Your task to perform on an android device: change your default location settings in chrome Image 0: 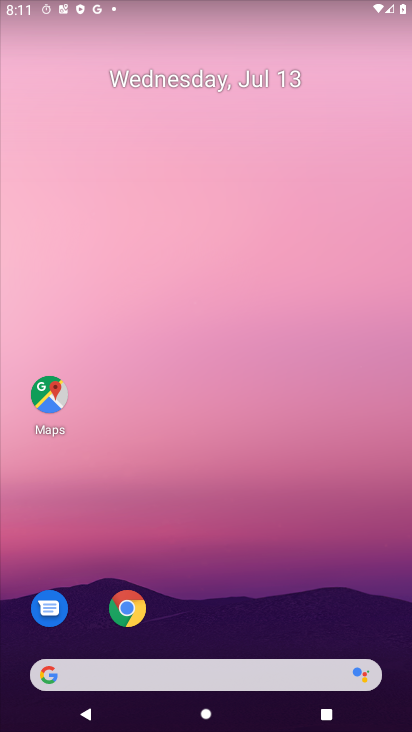
Step 0: drag from (190, 644) to (71, 225)
Your task to perform on an android device: change your default location settings in chrome Image 1: 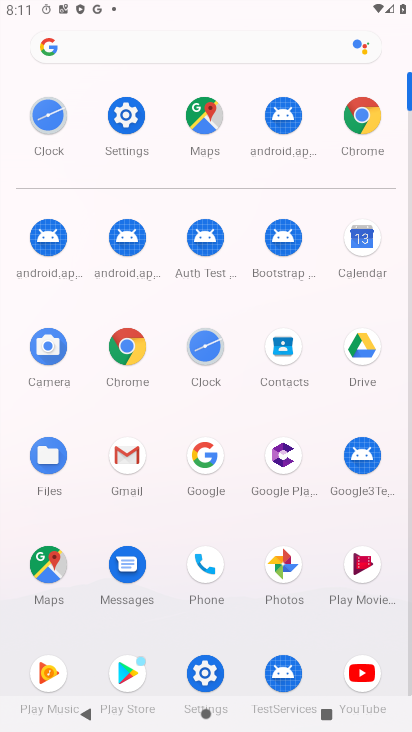
Step 1: click (143, 355)
Your task to perform on an android device: change your default location settings in chrome Image 2: 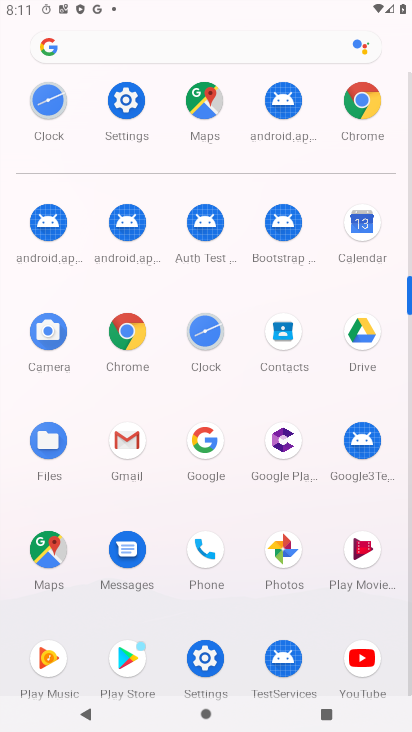
Step 2: click (121, 324)
Your task to perform on an android device: change your default location settings in chrome Image 3: 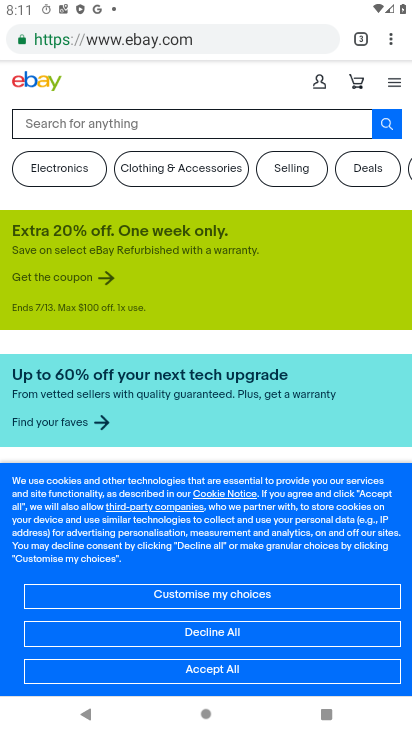
Step 3: drag from (390, 37) to (246, 468)
Your task to perform on an android device: change your default location settings in chrome Image 4: 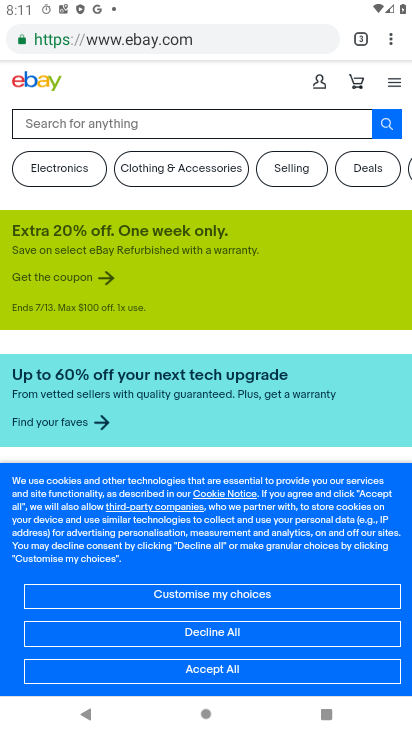
Step 4: click (246, 468)
Your task to perform on an android device: change your default location settings in chrome Image 5: 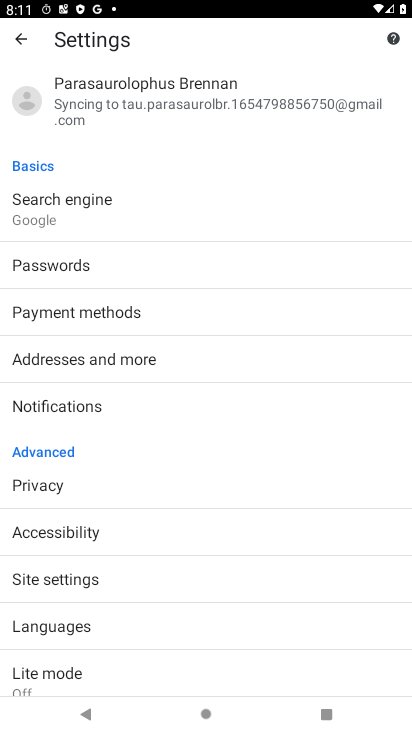
Step 5: drag from (149, 557) to (219, 114)
Your task to perform on an android device: change your default location settings in chrome Image 6: 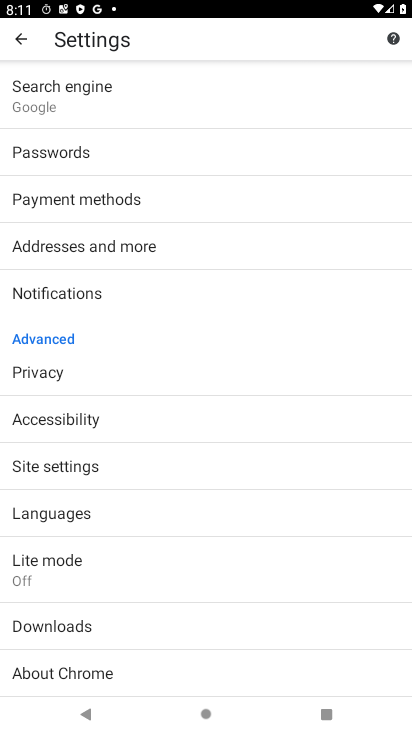
Step 6: click (92, 520)
Your task to perform on an android device: change your default location settings in chrome Image 7: 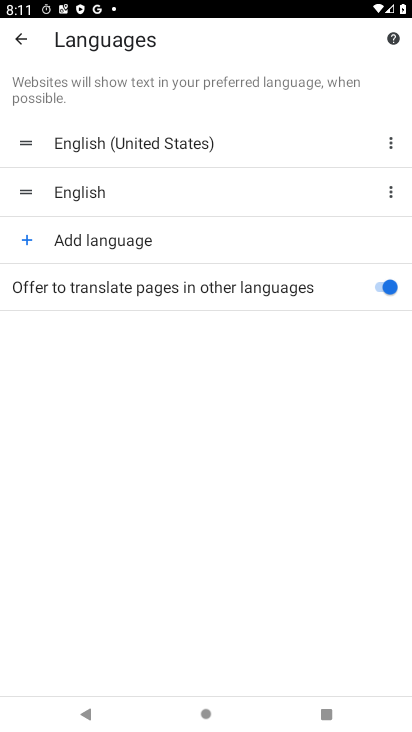
Step 7: click (387, 284)
Your task to perform on an android device: change your default location settings in chrome Image 8: 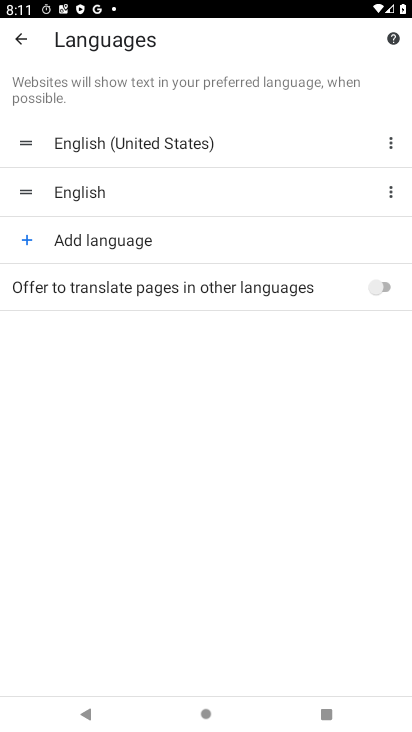
Step 8: task complete